Your task to perform on an android device: turn on sleep mode Image 0: 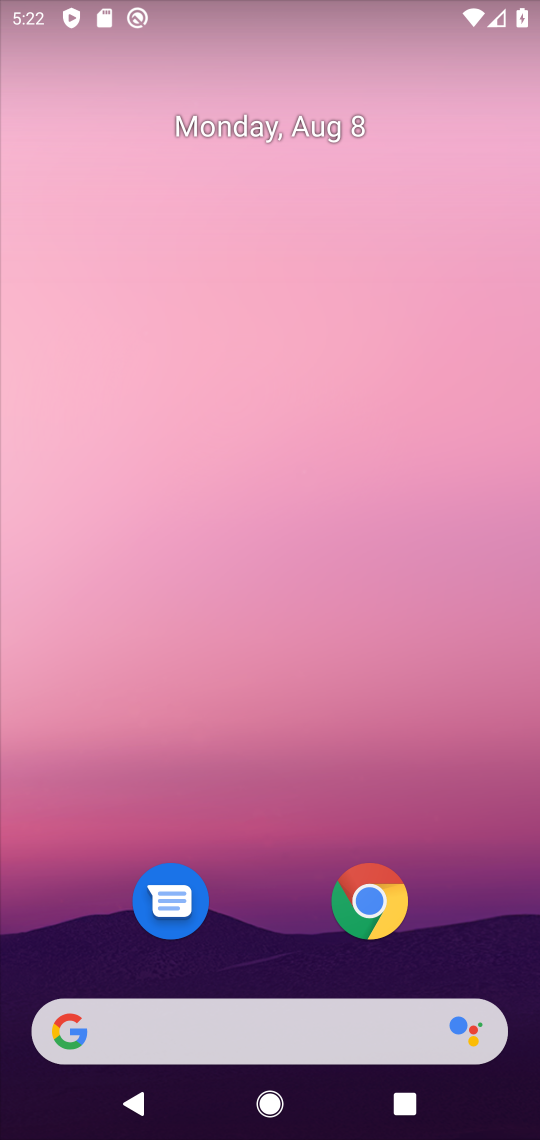
Step 0: drag from (493, 914) to (448, 254)
Your task to perform on an android device: turn on sleep mode Image 1: 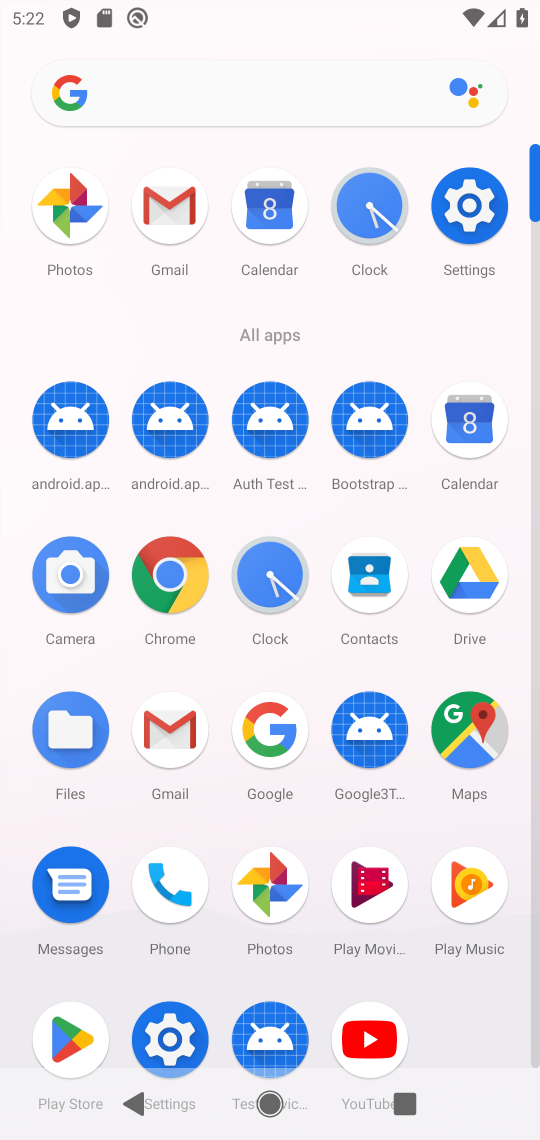
Step 1: click (485, 221)
Your task to perform on an android device: turn on sleep mode Image 2: 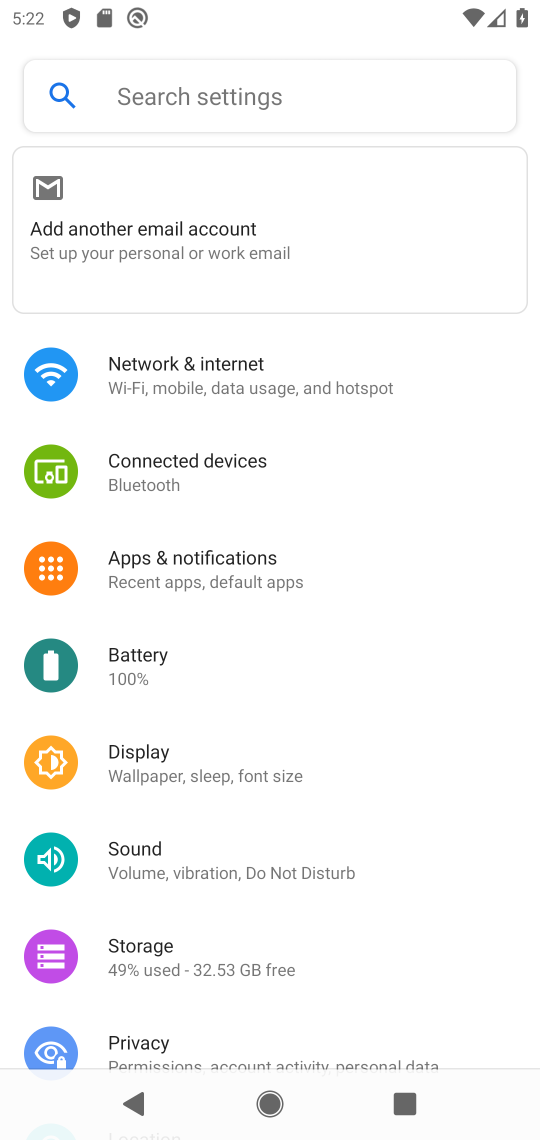
Step 2: click (257, 771)
Your task to perform on an android device: turn on sleep mode Image 3: 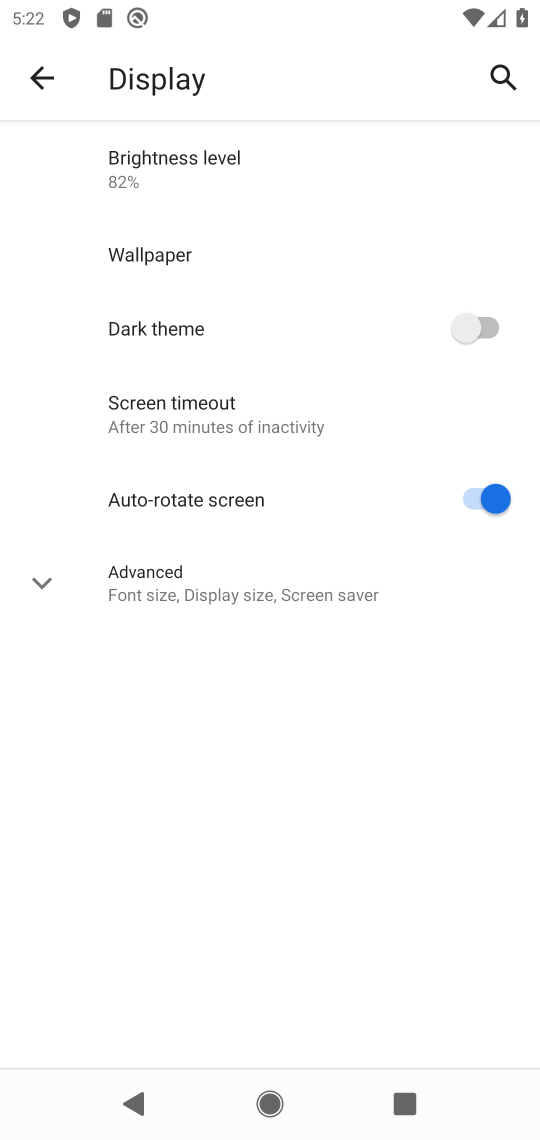
Step 3: click (390, 586)
Your task to perform on an android device: turn on sleep mode Image 4: 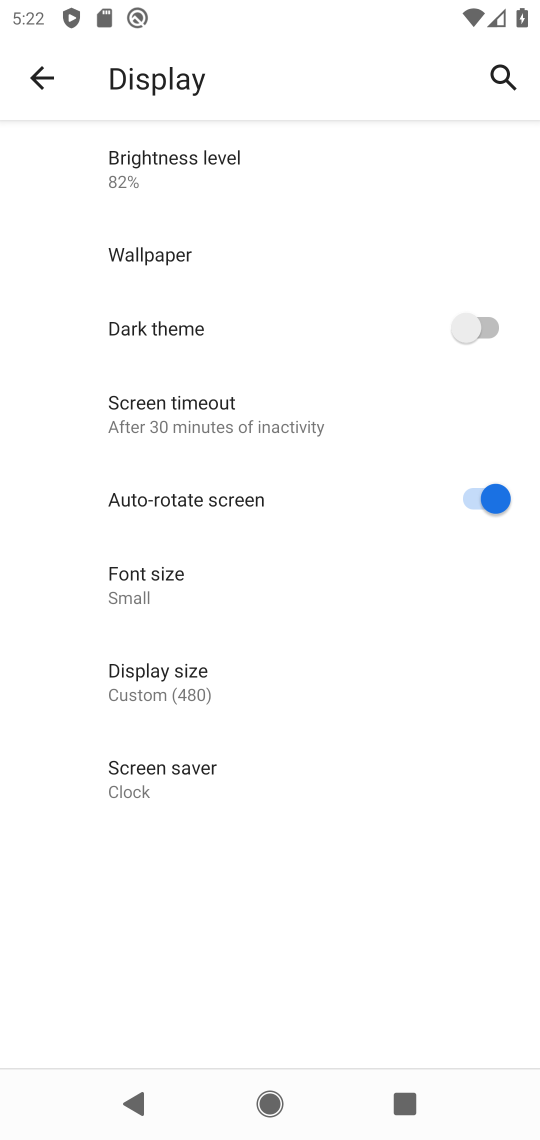
Step 4: task complete